Your task to perform on an android device: What's the weather going to be this weekend? Image 0: 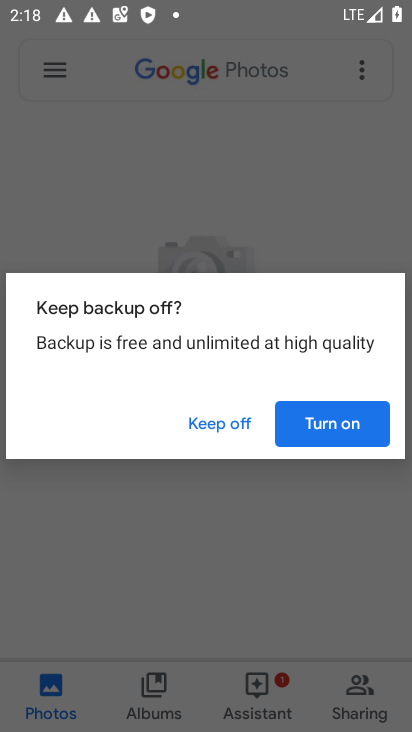
Step 0: press back button
Your task to perform on an android device: What's the weather going to be this weekend? Image 1: 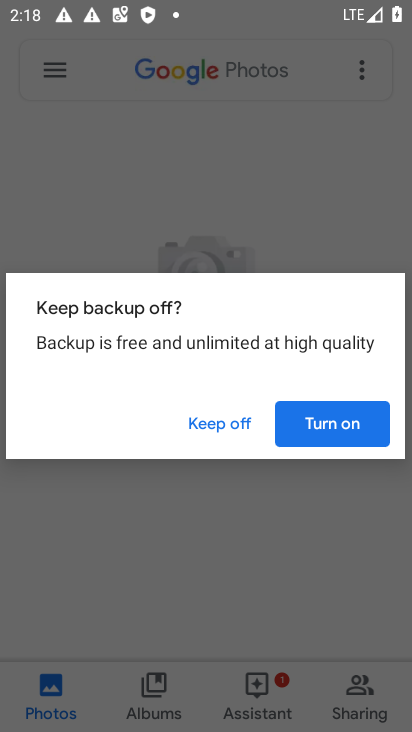
Step 1: press home button
Your task to perform on an android device: What's the weather going to be this weekend? Image 2: 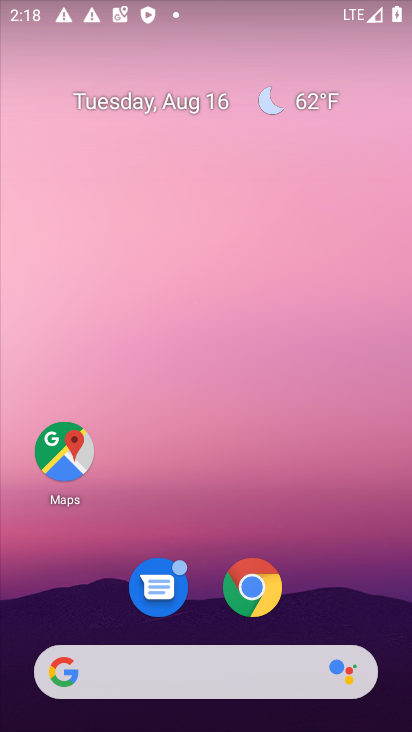
Step 2: click (173, 682)
Your task to perform on an android device: What's the weather going to be this weekend? Image 3: 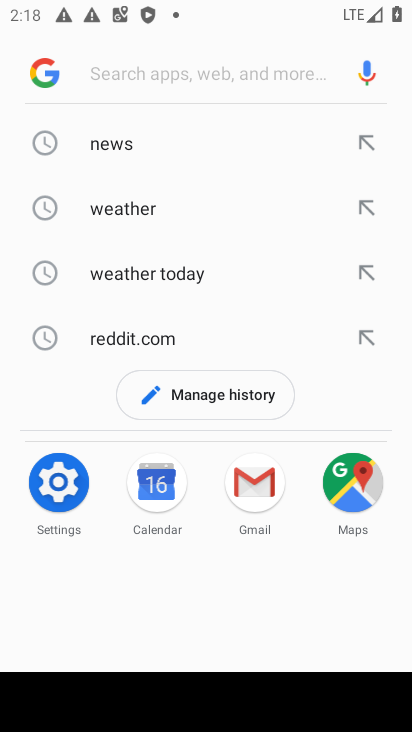
Step 3: click (139, 215)
Your task to perform on an android device: What's the weather going to be this weekend? Image 4: 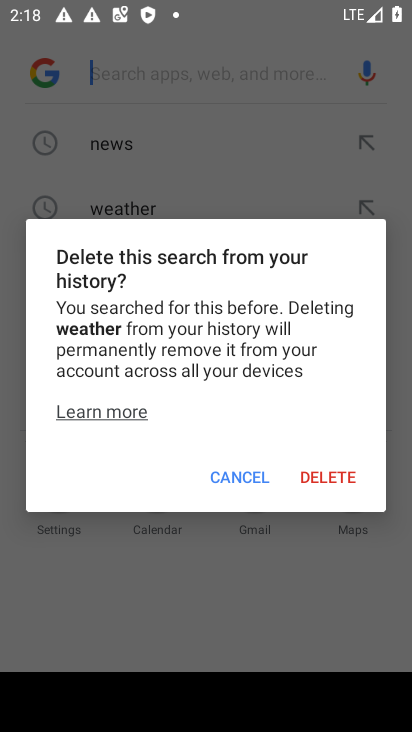
Step 4: click (241, 483)
Your task to perform on an android device: What's the weather going to be this weekend? Image 5: 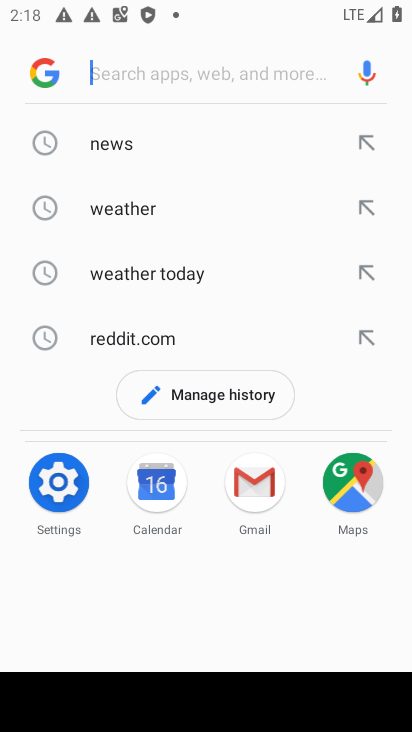
Step 5: click (146, 197)
Your task to perform on an android device: What's the weather going to be this weekend? Image 6: 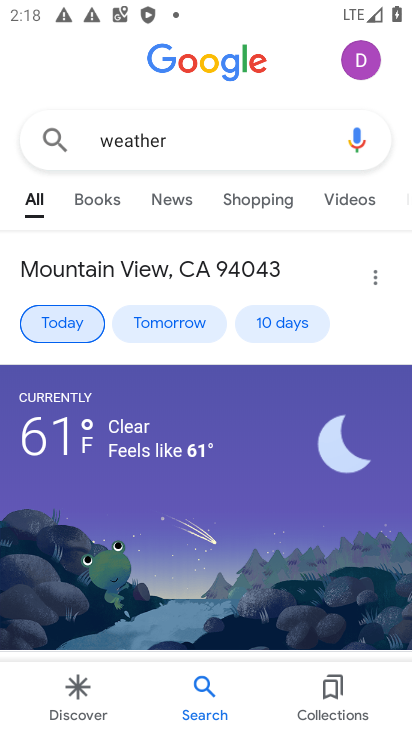
Step 6: click (292, 322)
Your task to perform on an android device: What's the weather going to be this weekend? Image 7: 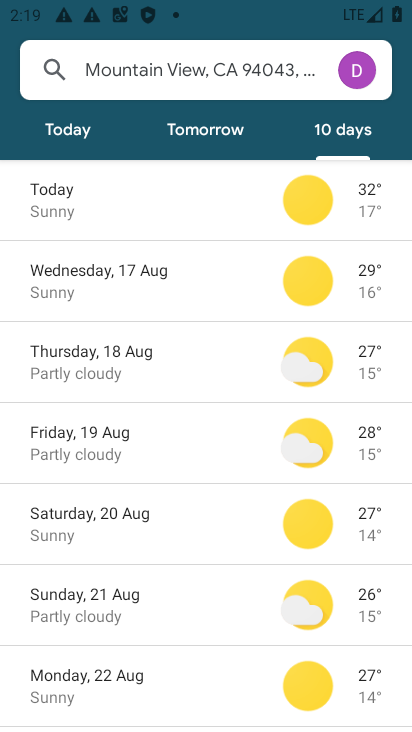
Step 7: click (59, 525)
Your task to perform on an android device: What's the weather going to be this weekend? Image 8: 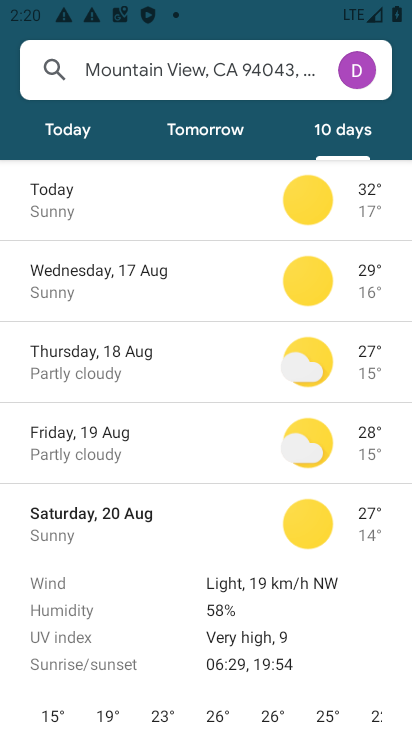
Step 8: click (243, 508)
Your task to perform on an android device: What's the weather going to be this weekend? Image 9: 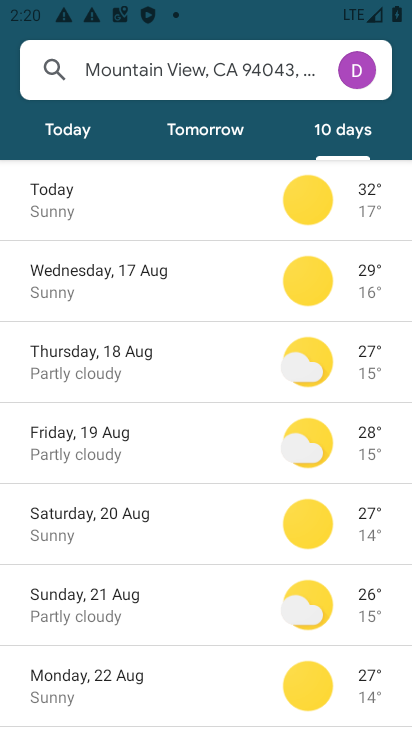
Step 9: task complete